Your task to perform on an android device: Is it going to rain today? Image 0: 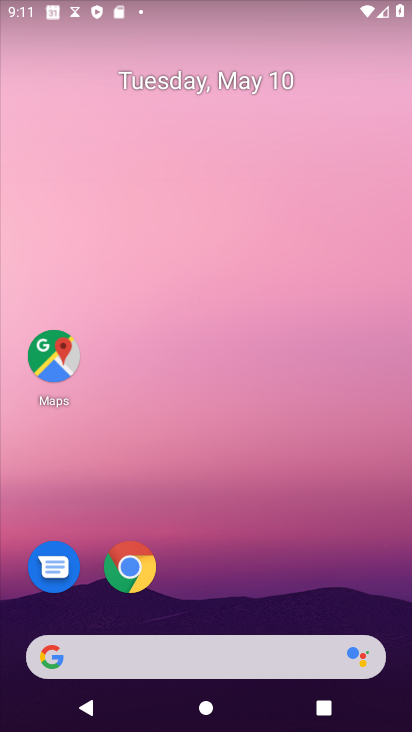
Step 0: click (81, 669)
Your task to perform on an android device: Is it going to rain today? Image 1: 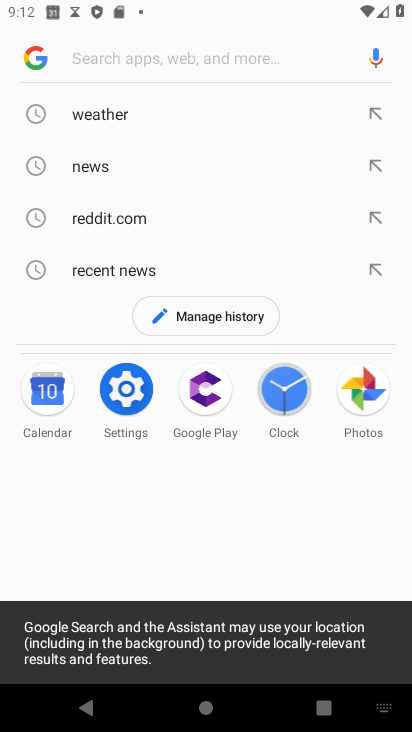
Step 1: click (91, 173)
Your task to perform on an android device: Is it going to rain today? Image 2: 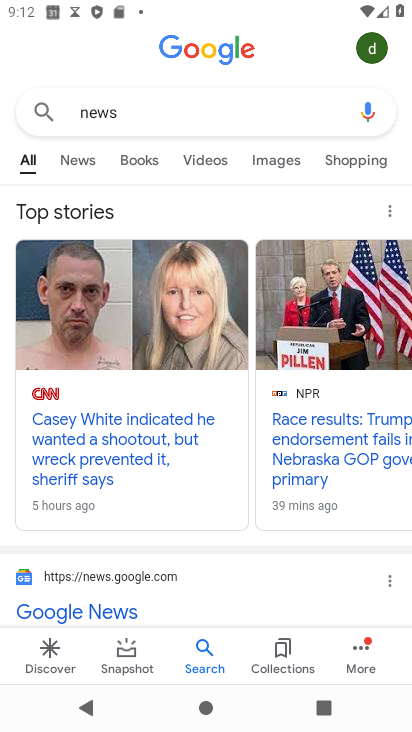
Step 2: task complete